Your task to perform on an android device: change the clock display to digital Image 0: 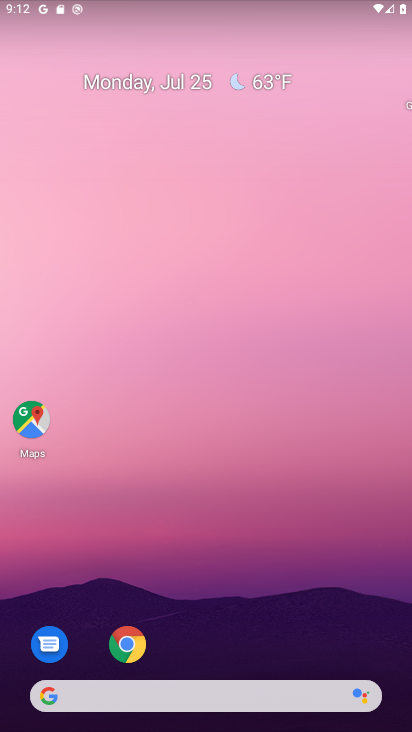
Step 0: press back button
Your task to perform on an android device: change the clock display to digital Image 1: 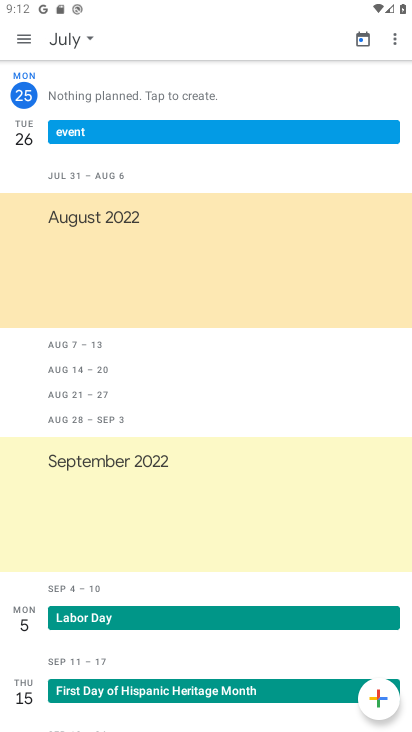
Step 1: drag from (223, 641) to (240, 59)
Your task to perform on an android device: change the clock display to digital Image 2: 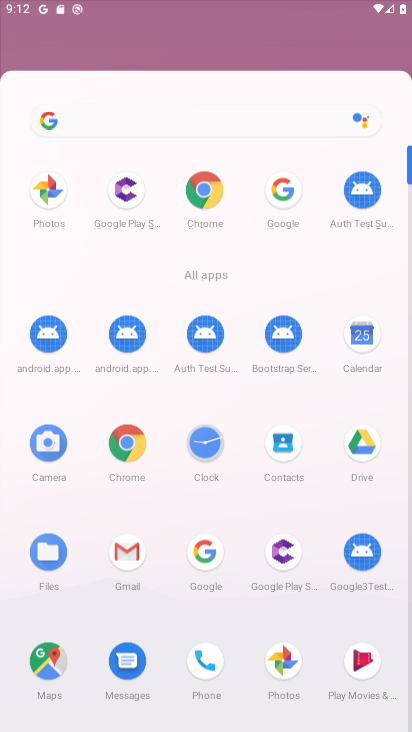
Step 2: drag from (228, 541) to (284, 119)
Your task to perform on an android device: change the clock display to digital Image 3: 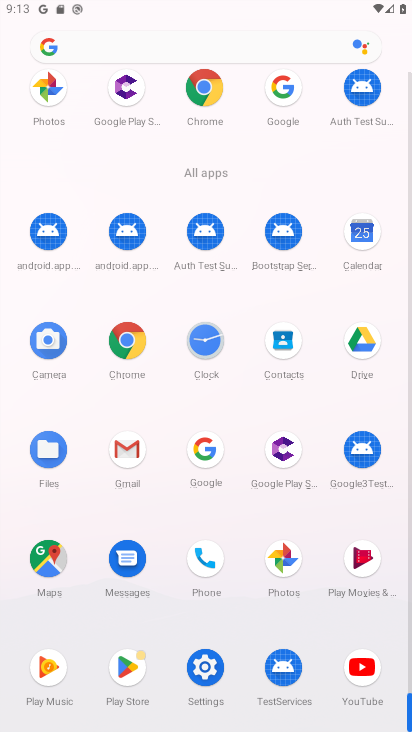
Step 3: click (189, 343)
Your task to perform on an android device: change the clock display to digital Image 4: 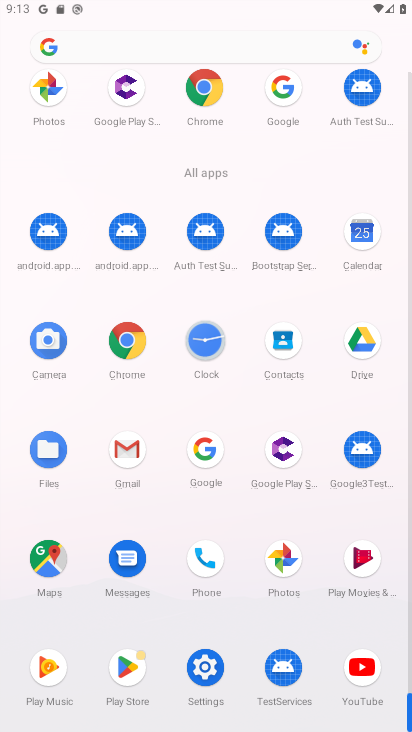
Step 4: click (208, 338)
Your task to perform on an android device: change the clock display to digital Image 5: 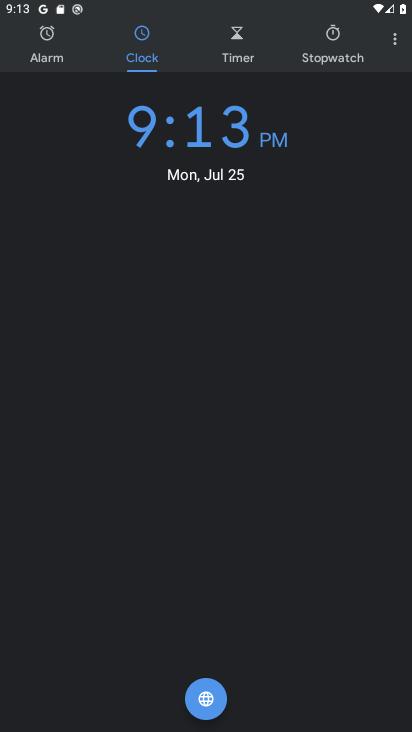
Step 5: click (379, 35)
Your task to perform on an android device: change the clock display to digital Image 6: 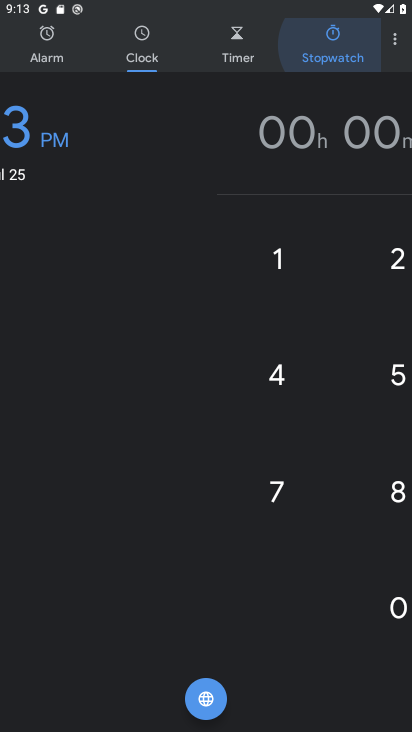
Step 6: click (383, 36)
Your task to perform on an android device: change the clock display to digital Image 7: 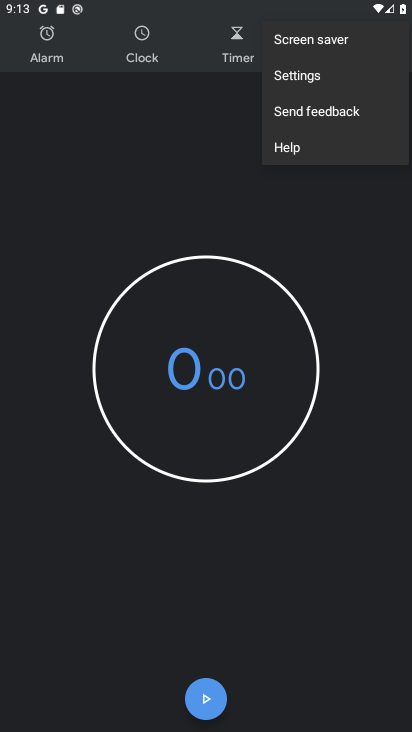
Step 7: click (307, 64)
Your task to perform on an android device: change the clock display to digital Image 8: 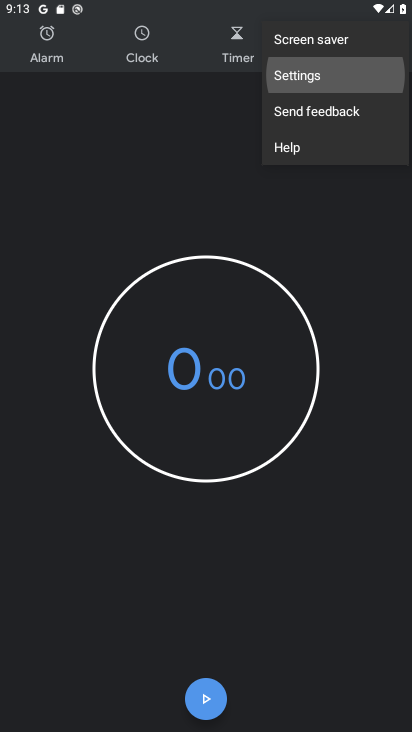
Step 8: click (300, 79)
Your task to perform on an android device: change the clock display to digital Image 9: 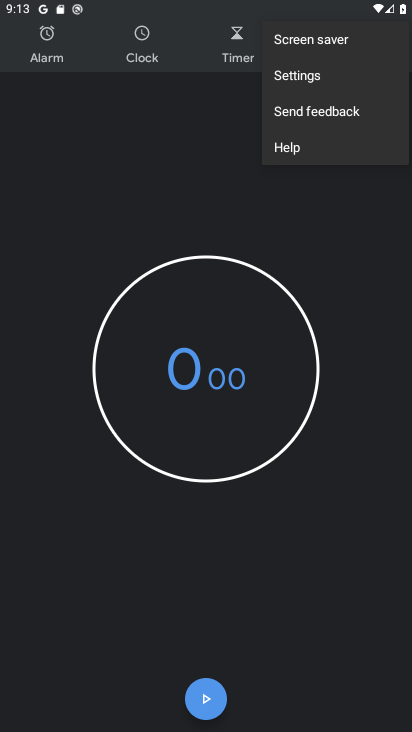
Step 9: click (300, 79)
Your task to perform on an android device: change the clock display to digital Image 10: 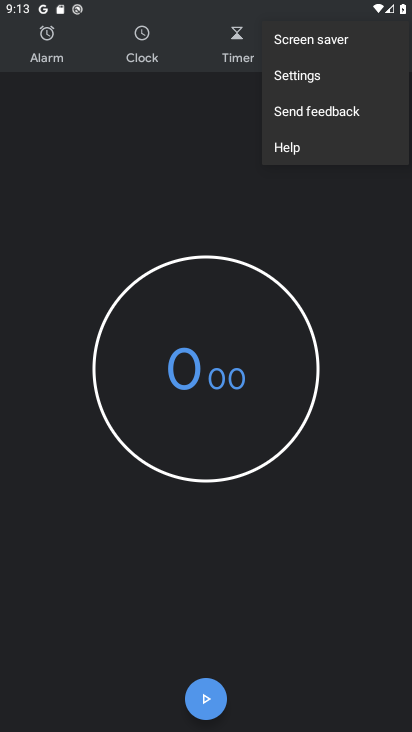
Step 10: click (300, 79)
Your task to perform on an android device: change the clock display to digital Image 11: 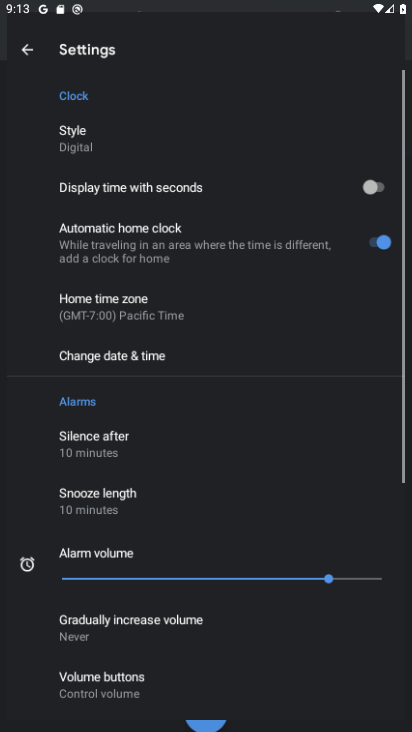
Step 11: click (302, 82)
Your task to perform on an android device: change the clock display to digital Image 12: 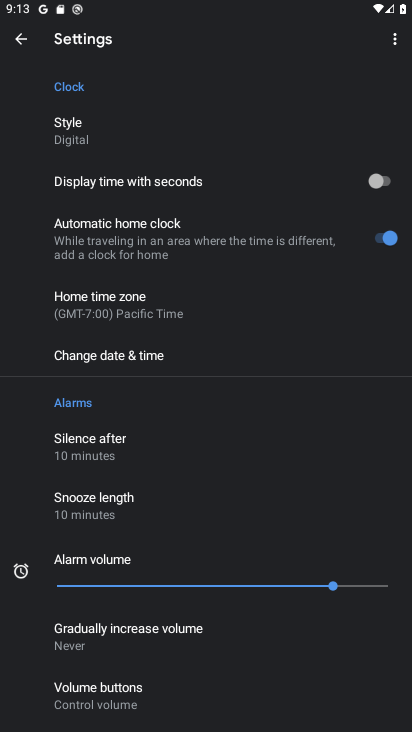
Step 12: task complete